Your task to perform on an android device: change your default location settings in chrome Image 0: 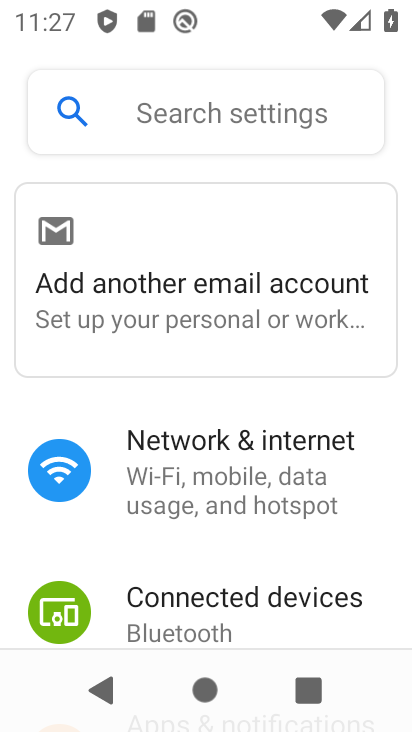
Step 0: press home button
Your task to perform on an android device: change your default location settings in chrome Image 1: 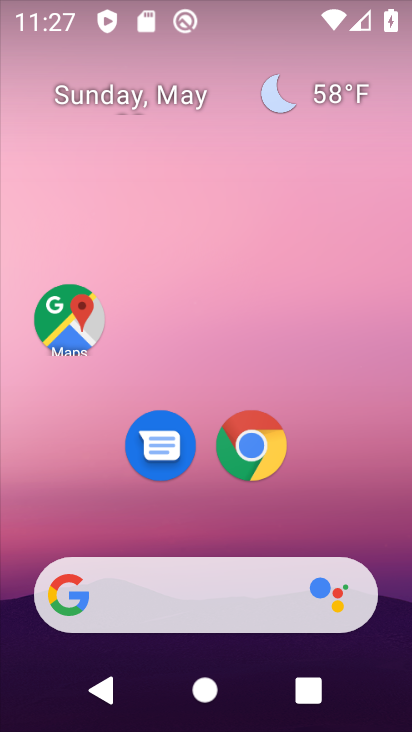
Step 1: click (250, 439)
Your task to perform on an android device: change your default location settings in chrome Image 2: 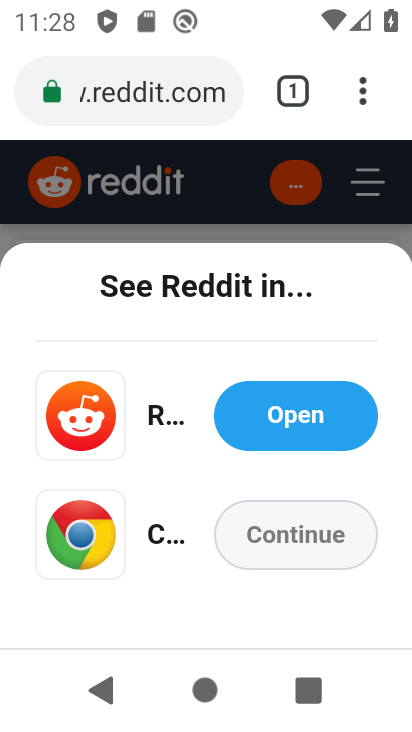
Step 2: click (363, 93)
Your task to perform on an android device: change your default location settings in chrome Image 3: 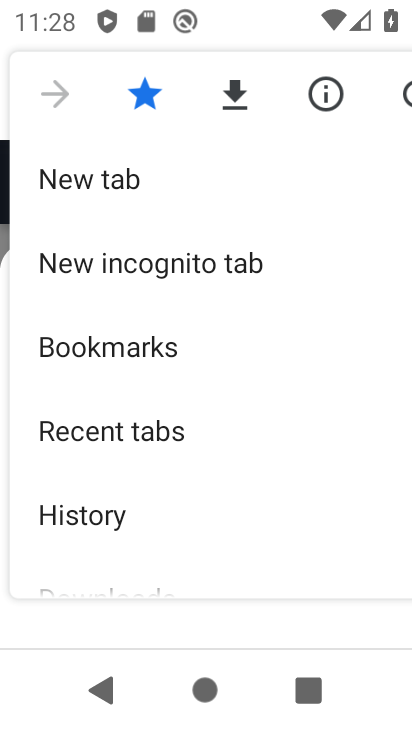
Step 3: drag from (188, 544) to (240, 116)
Your task to perform on an android device: change your default location settings in chrome Image 4: 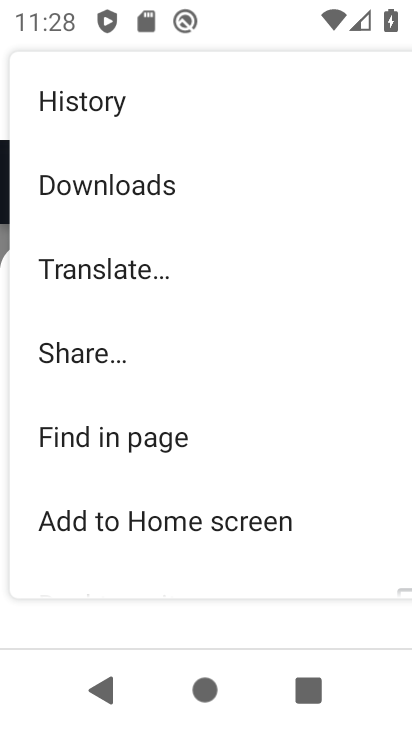
Step 4: drag from (203, 520) to (222, 173)
Your task to perform on an android device: change your default location settings in chrome Image 5: 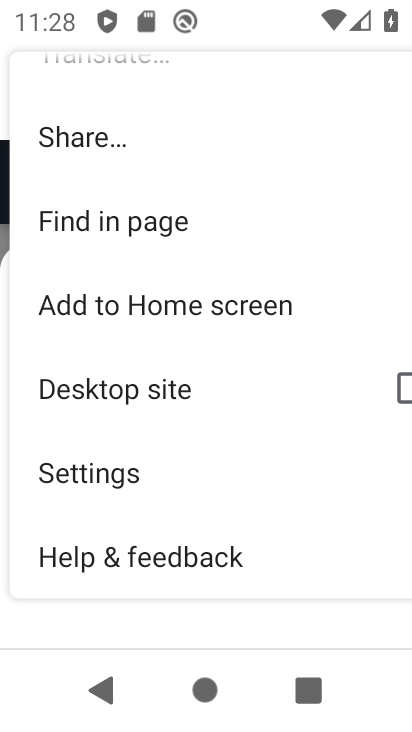
Step 5: click (148, 470)
Your task to perform on an android device: change your default location settings in chrome Image 6: 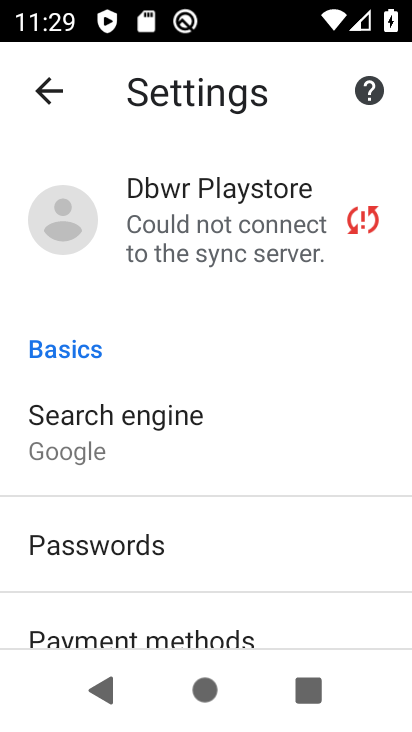
Step 6: drag from (266, 617) to (288, 220)
Your task to perform on an android device: change your default location settings in chrome Image 7: 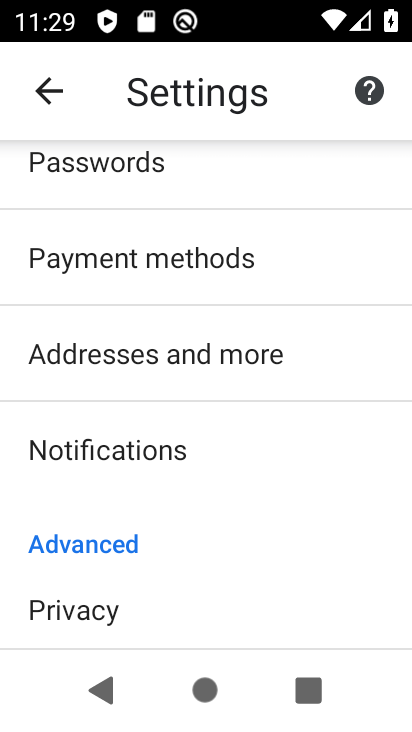
Step 7: drag from (188, 608) to (233, 118)
Your task to perform on an android device: change your default location settings in chrome Image 8: 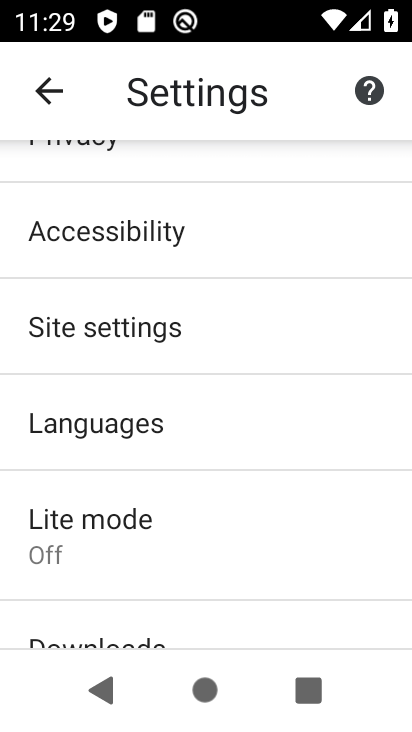
Step 8: click (191, 326)
Your task to perform on an android device: change your default location settings in chrome Image 9: 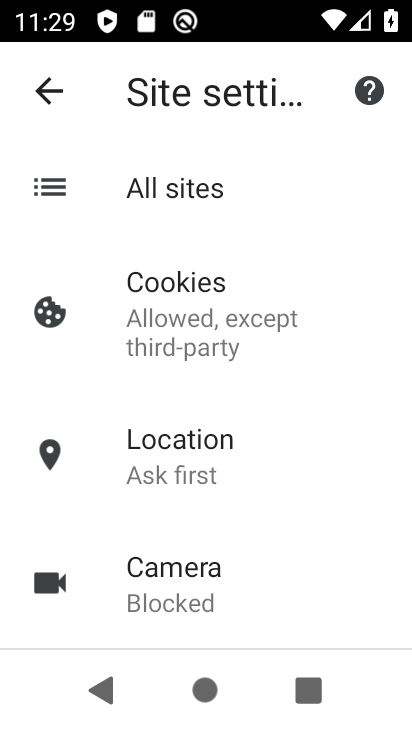
Step 9: click (212, 450)
Your task to perform on an android device: change your default location settings in chrome Image 10: 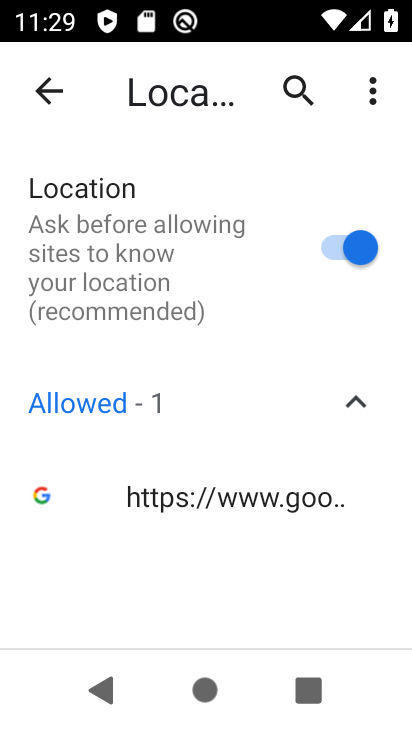
Step 10: click (347, 248)
Your task to perform on an android device: change your default location settings in chrome Image 11: 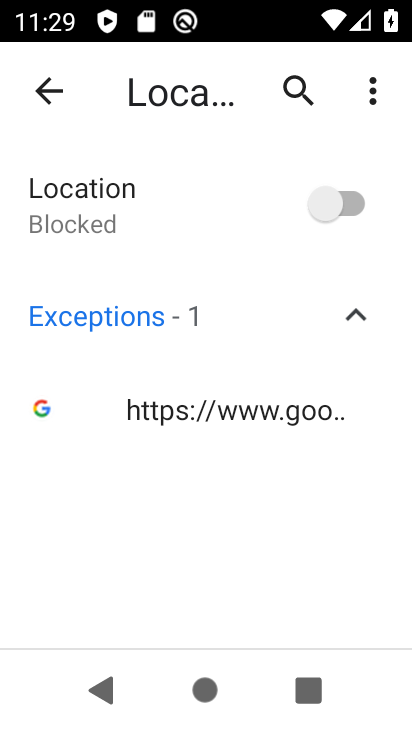
Step 11: task complete